Your task to perform on an android device: delete a single message in the gmail app Image 0: 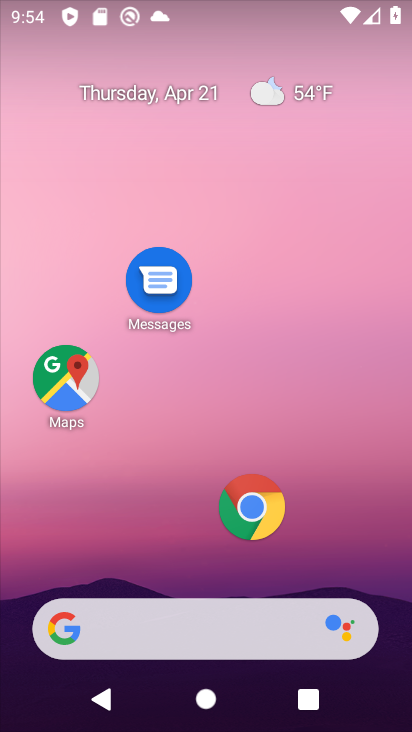
Step 0: drag from (193, 434) to (214, 25)
Your task to perform on an android device: delete a single message in the gmail app Image 1: 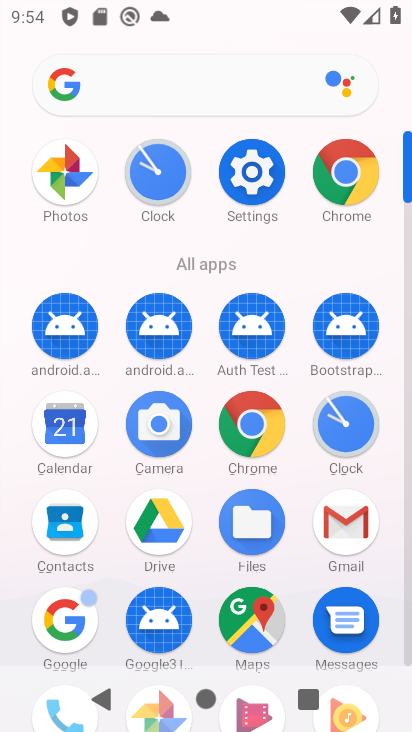
Step 1: click (344, 525)
Your task to perform on an android device: delete a single message in the gmail app Image 2: 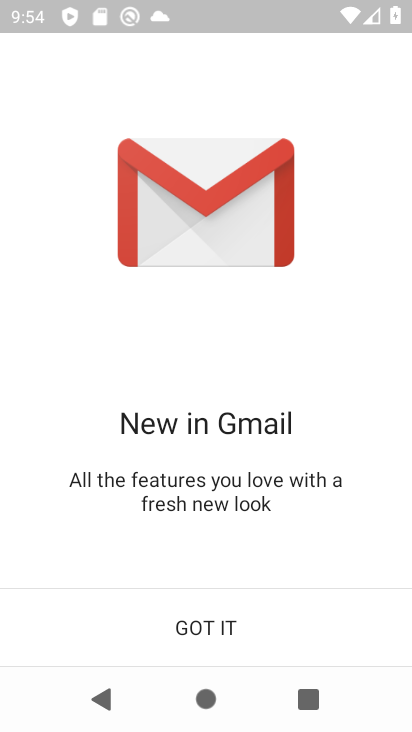
Step 2: click (214, 632)
Your task to perform on an android device: delete a single message in the gmail app Image 3: 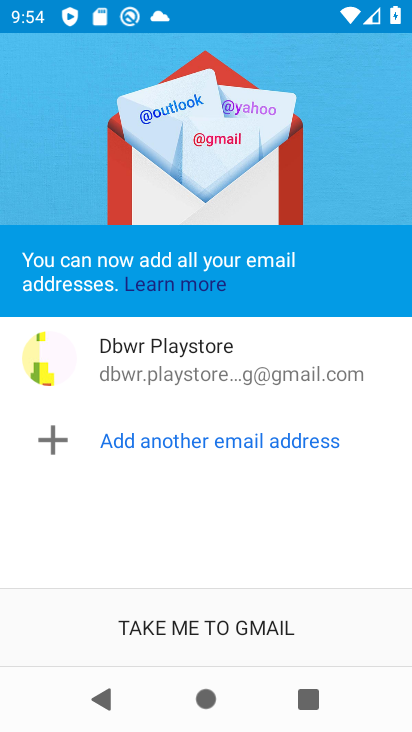
Step 3: click (214, 632)
Your task to perform on an android device: delete a single message in the gmail app Image 4: 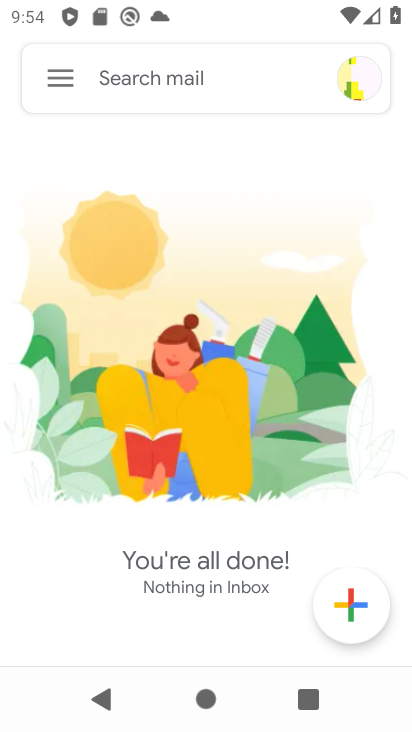
Step 4: click (66, 76)
Your task to perform on an android device: delete a single message in the gmail app Image 5: 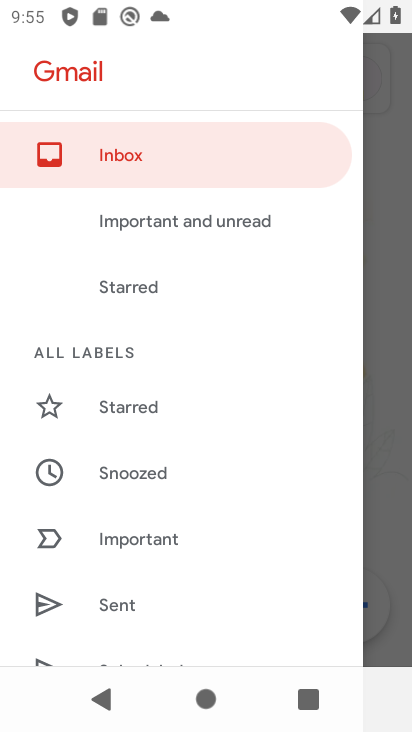
Step 5: drag from (182, 514) to (171, 206)
Your task to perform on an android device: delete a single message in the gmail app Image 6: 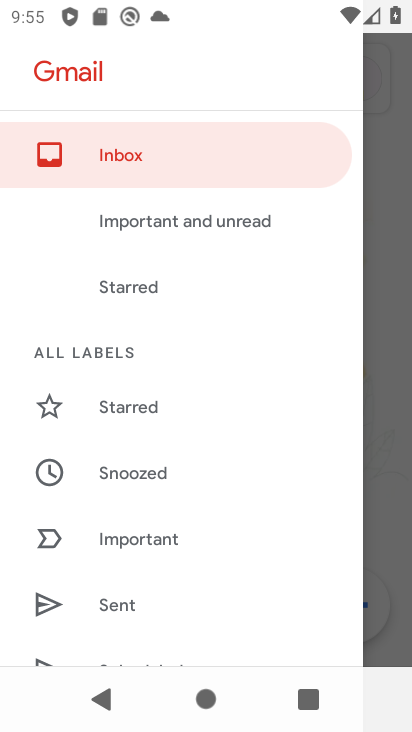
Step 6: drag from (202, 542) to (204, 220)
Your task to perform on an android device: delete a single message in the gmail app Image 7: 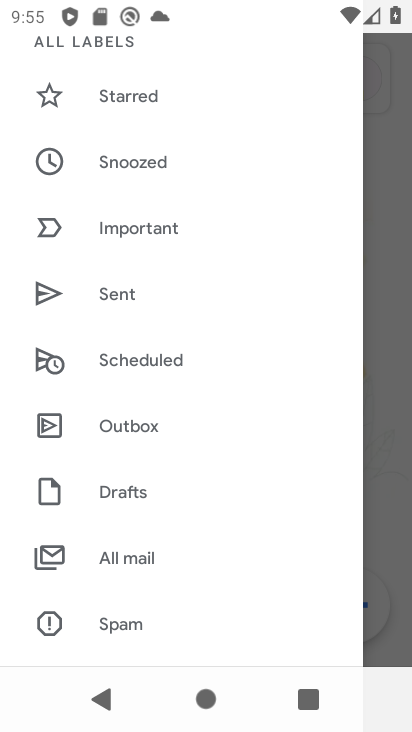
Step 7: click (134, 555)
Your task to perform on an android device: delete a single message in the gmail app Image 8: 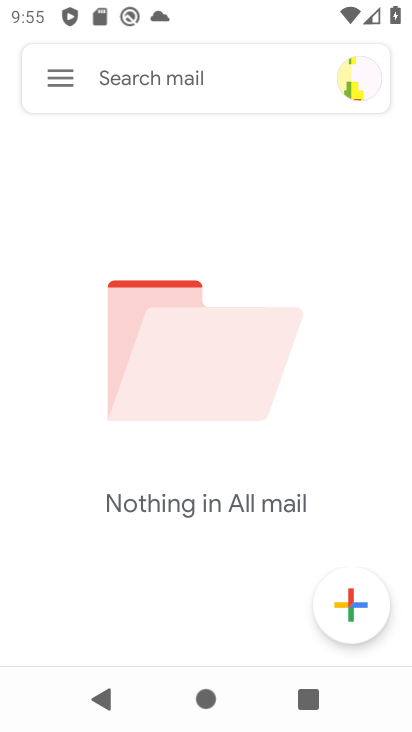
Step 8: task complete